Your task to perform on an android device: Open network settings Image 0: 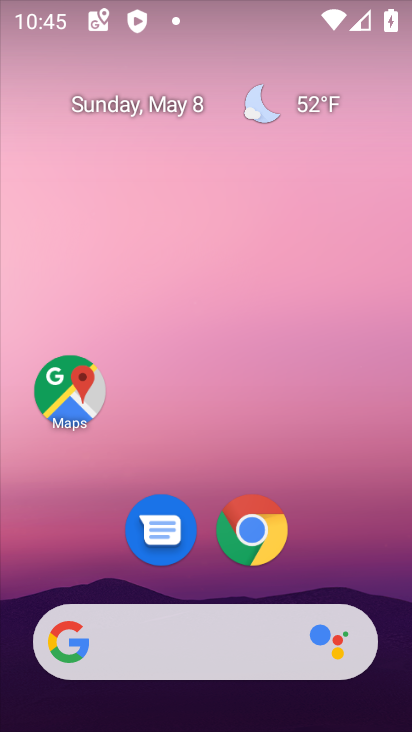
Step 0: drag from (364, 553) to (359, 118)
Your task to perform on an android device: Open network settings Image 1: 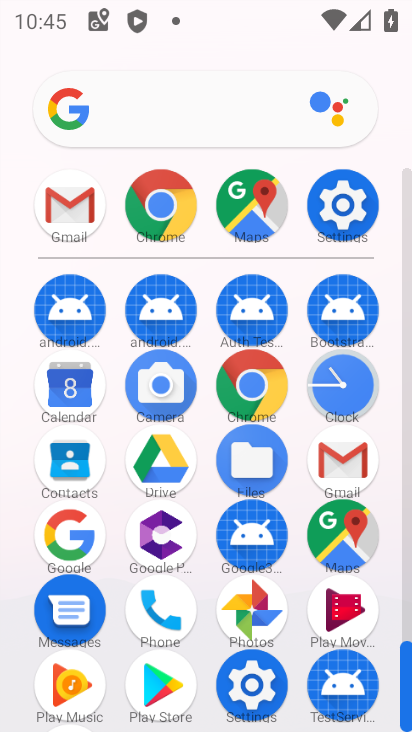
Step 1: click (345, 209)
Your task to perform on an android device: Open network settings Image 2: 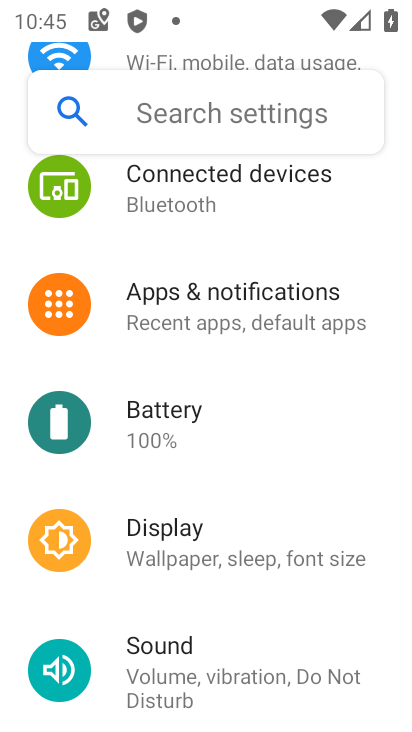
Step 2: drag from (269, 275) to (280, 641)
Your task to perform on an android device: Open network settings Image 3: 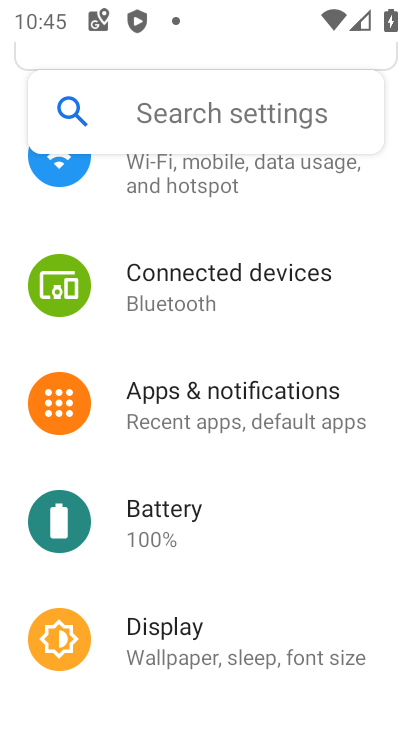
Step 3: drag from (280, 601) to (284, 291)
Your task to perform on an android device: Open network settings Image 4: 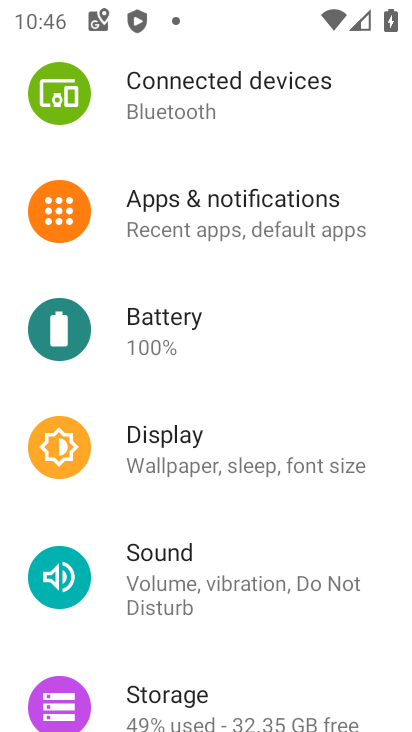
Step 4: drag from (273, 199) to (330, 658)
Your task to perform on an android device: Open network settings Image 5: 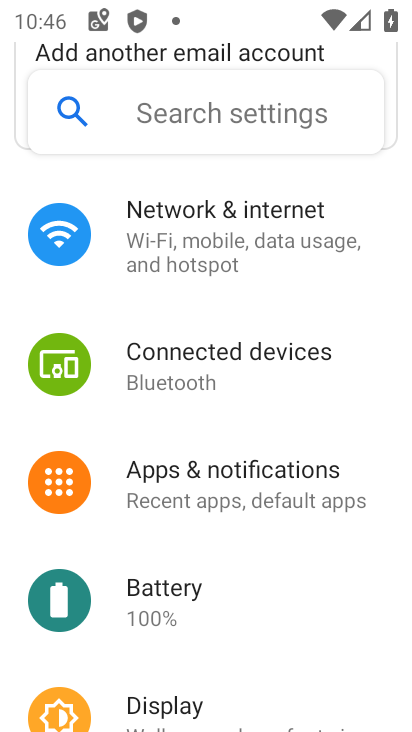
Step 5: drag from (249, 270) to (249, 530)
Your task to perform on an android device: Open network settings Image 6: 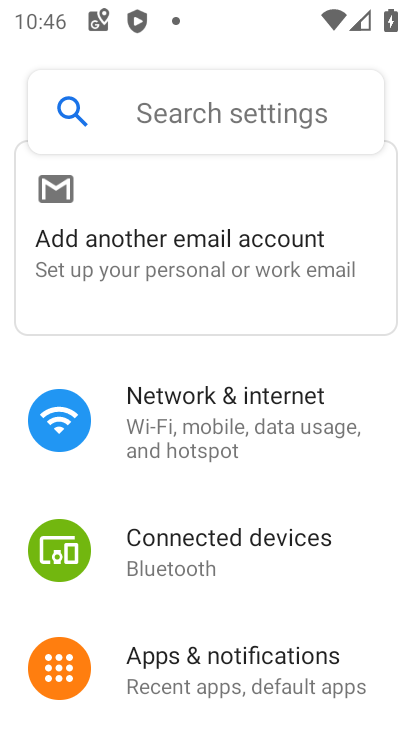
Step 6: click (240, 427)
Your task to perform on an android device: Open network settings Image 7: 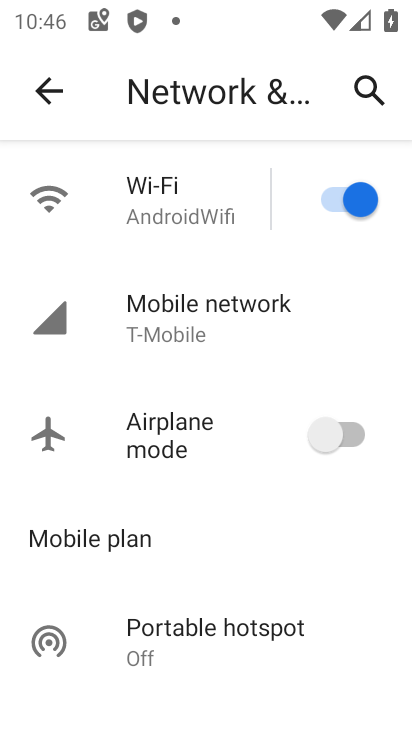
Step 7: click (232, 322)
Your task to perform on an android device: Open network settings Image 8: 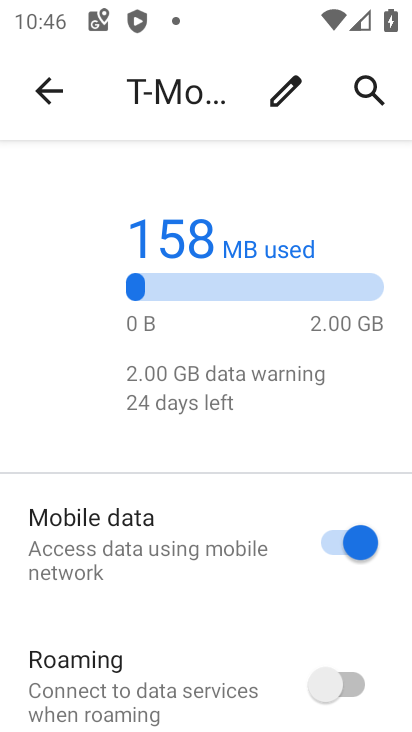
Step 8: task complete